Your task to perform on an android device: delete location history Image 0: 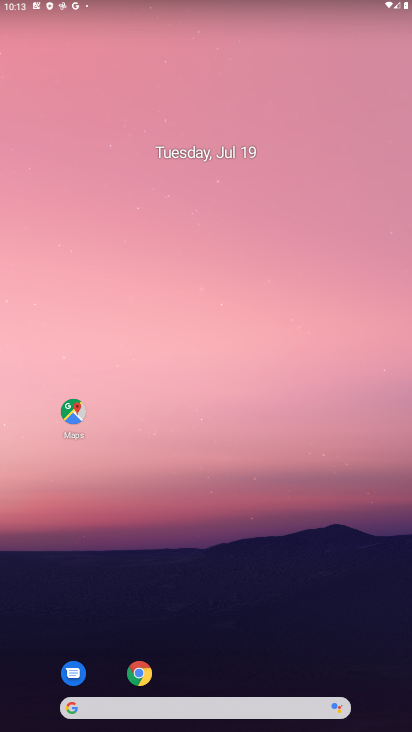
Step 0: drag from (304, 672) to (293, 79)
Your task to perform on an android device: delete location history Image 1: 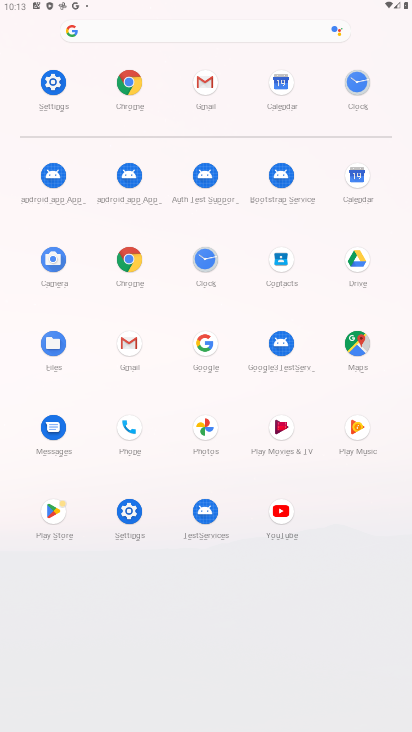
Step 1: click (44, 100)
Your task to perform on an android device: delete location history Image 2: 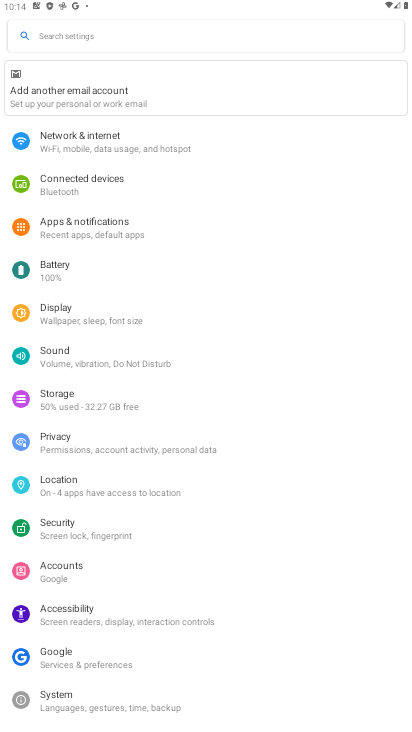
Step 2: click (112, 496)
Your task to perform on an android device: delete location history Image 3: 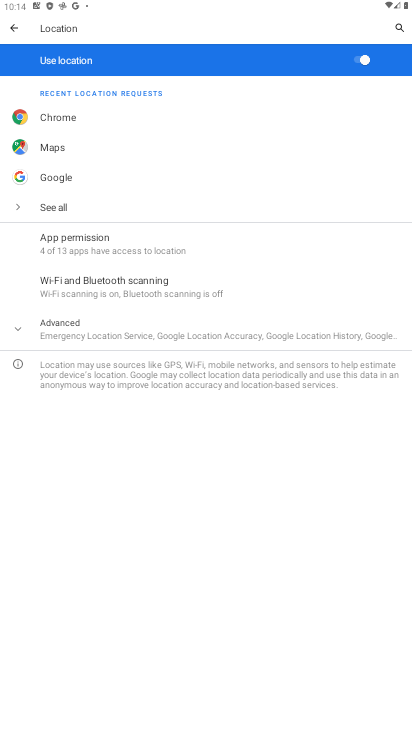
Step 3: task complete